Your task to perform on an android device: add a label to a message in the gmail app Image 0: 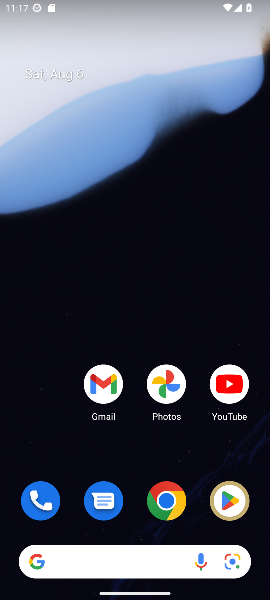
Step 0: click (109, 387)
Your task to perform on an android device: add a label to a message in the gmail app Image 1: 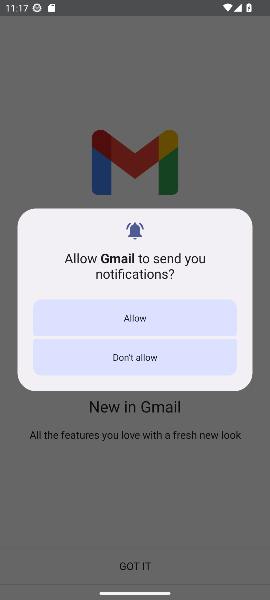
Step 1: click (140, 321)
Your task to perform on an android device: add a label to a message in the gmail app Image 2: 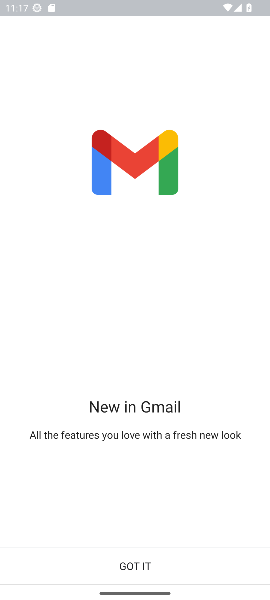
Step 2: click (134, 560)
Your task to perform on an android device: add a label to a message in the gmail app Image 3: 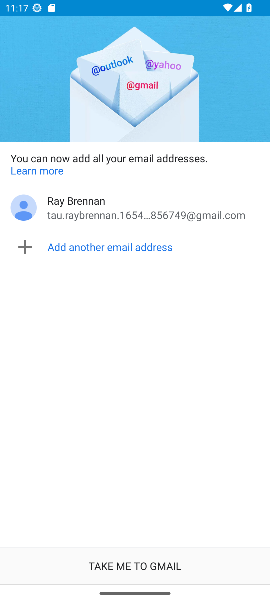
Step 3: click (136, 560)
Your task to perform on an android device: add a label to a message in the gmail app Image 4: 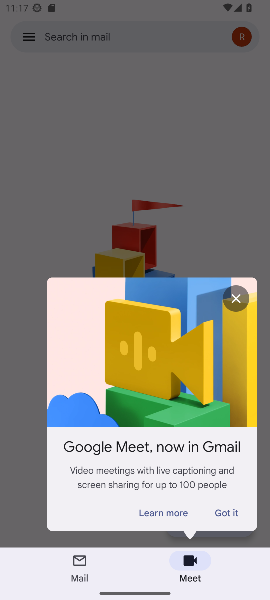
Step 4: click (241, 297)
Your task to perform on an android device: add a label to a message in the gmail app Image 5: 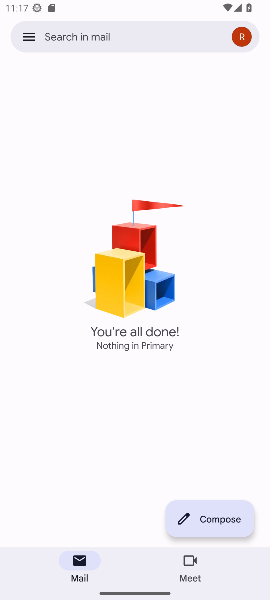
Step 5: click (30, 36)
Your task to perform on an android device: add a label to a message in the gmail app Image 6: 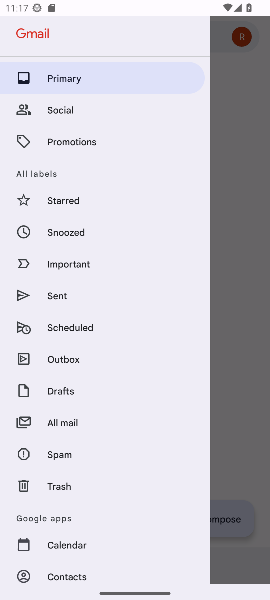
Step 6: click (65, 424)
Your task to perform on an android device: add a label to a message in the gmail app Image 7: 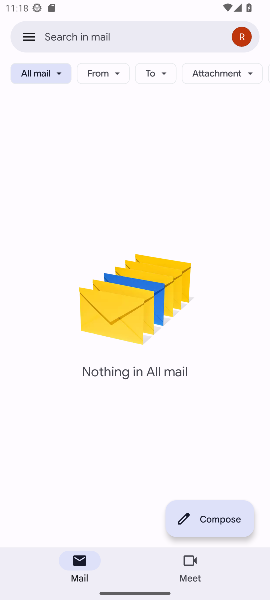
Step 7: task complete